Your task to perform on an android device: What's the weather? Image 0: 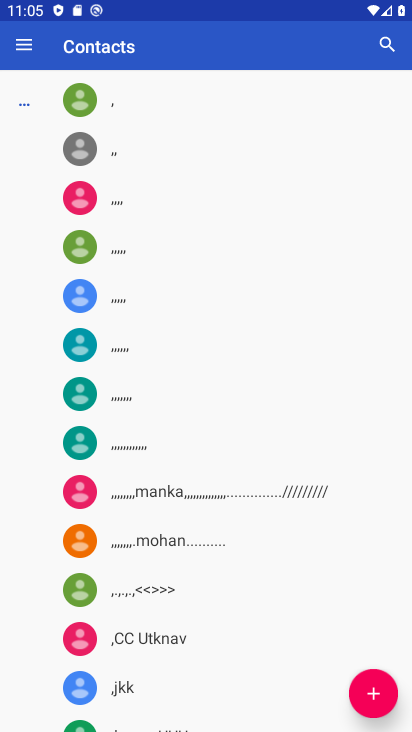
Step 0: press home button
Your task to perform on an android device: What's the weather? Image 1: 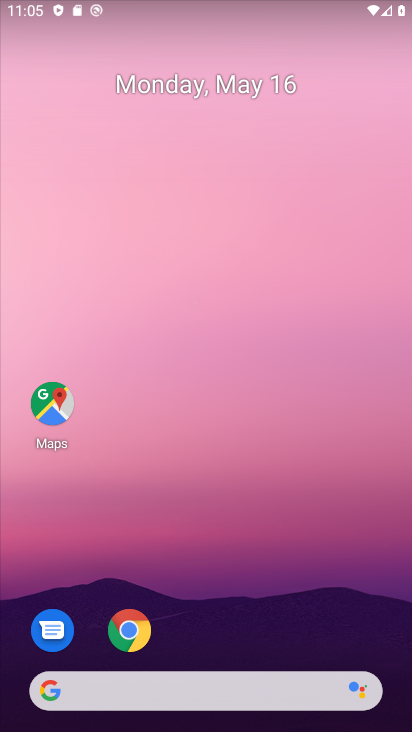
Step 1: drag from (218, 641) to (273, 55)
Your task to perform on an android device: What's the weather? Image 2: 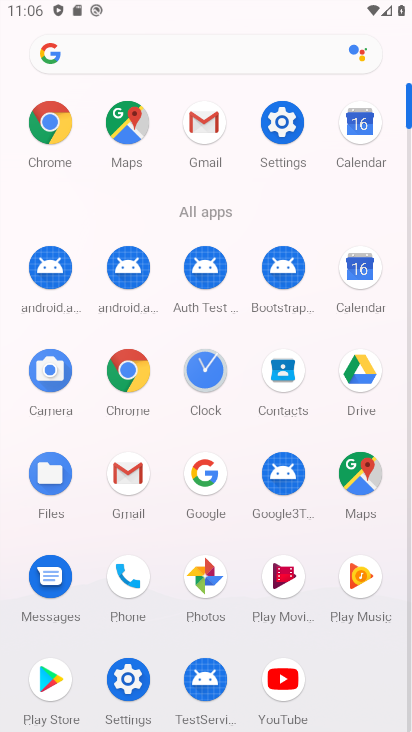
Step 2: click (45, 120)
Your task to perform on an android device: What's the weather? Image 3: 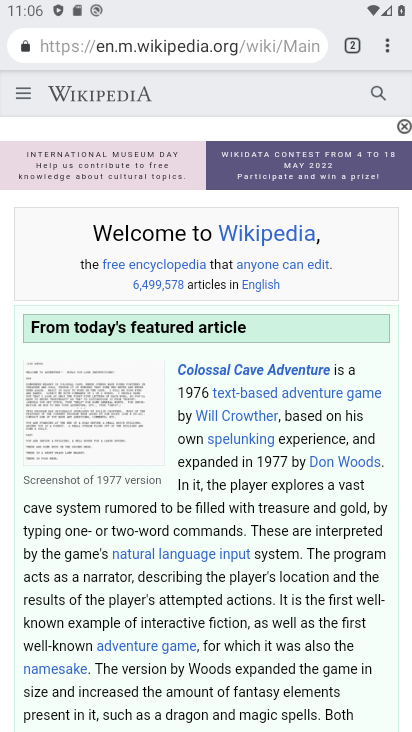
Step 3: click (221, 45)
Your task to perform on an android device: What's the weather? Image 4: 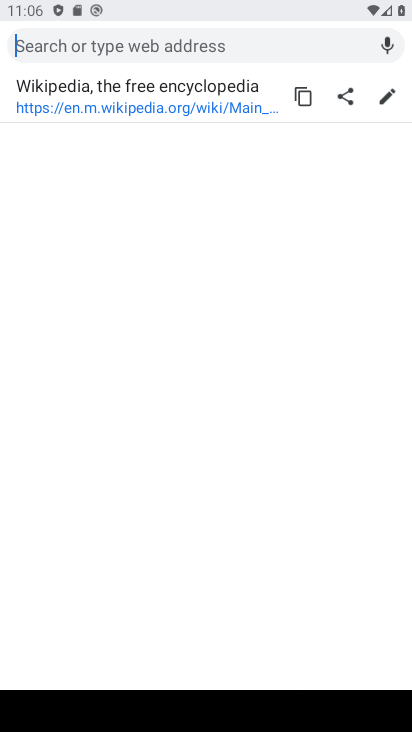
Step 4: type "weather"
Your task to perform on an android device: What's the weather? Image 5: 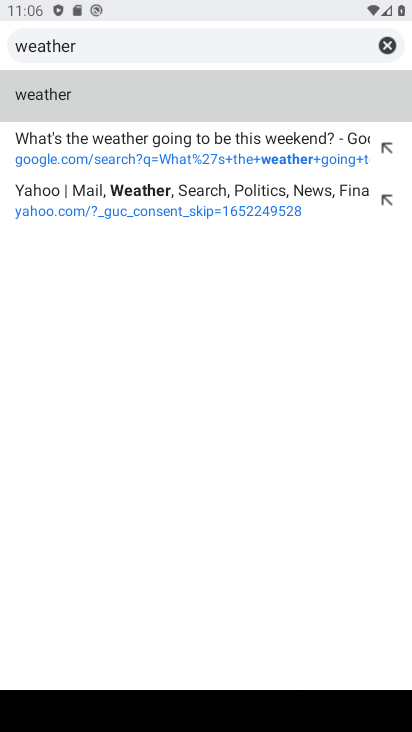
Step 5: click (72, 90)
Your task to perform on an android device: What's the weather? Image 6: 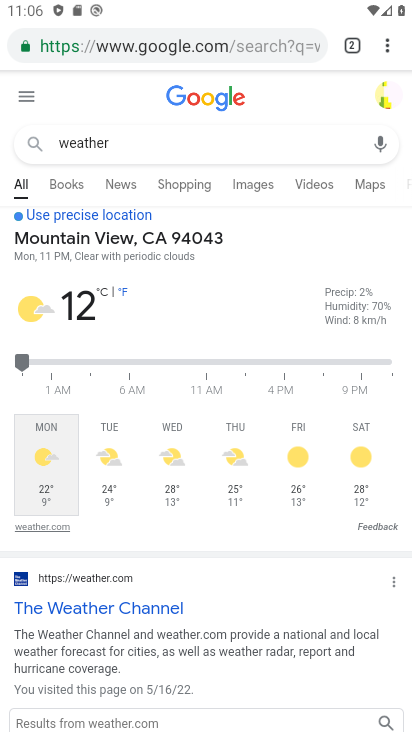
Step 6: click (113, 444)
Your task to perform on an android device: What's the weather? Image 7: 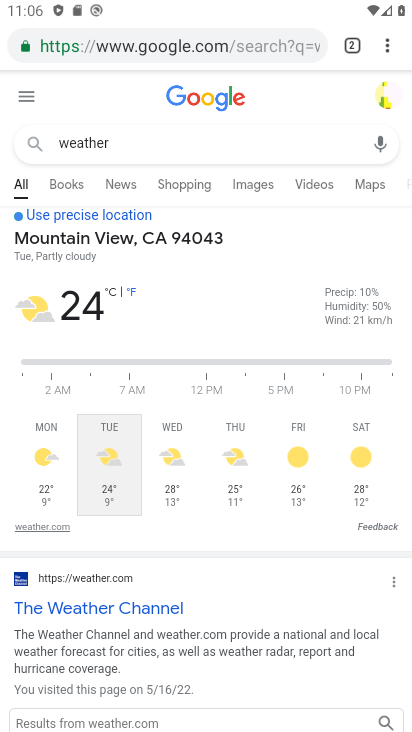
Step 7: task complete